Your task to perform on an android device: open chrome privacy settings Image 0: 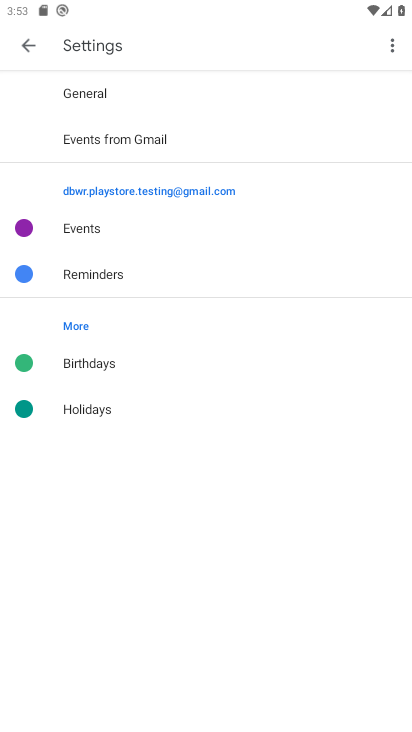
Step 0: press home button
Your task to perform on an android device: open chrome privacy settings Image 1: 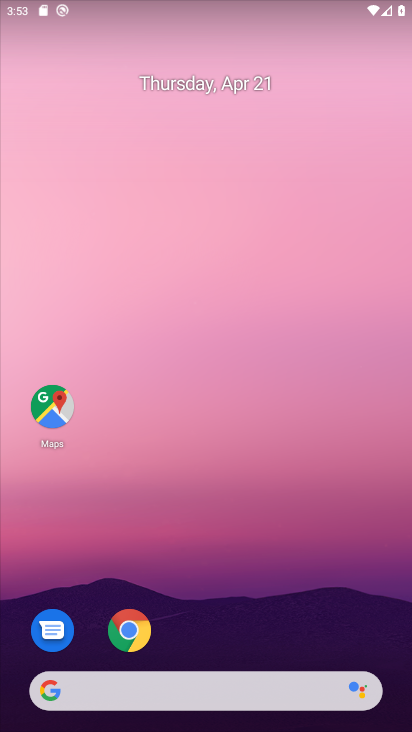
Step 1: click (132, 637)
Your task to perform on an android device: open chrome privacy settings Image 2: 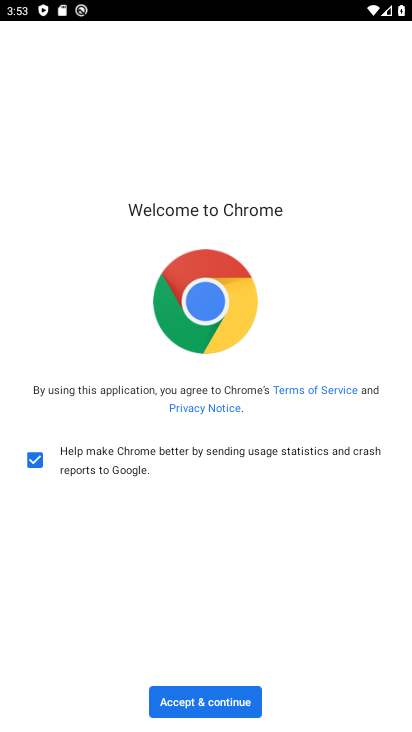
Step 2: click (232, 702)
Your task to perform on an android device: open chrome privacy settings Image 3: 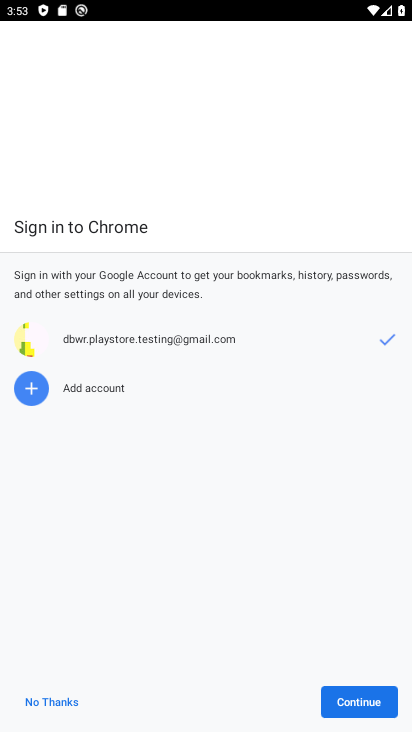
Step 3: click (336, 697)
Your task to perform on an android device: open chrome privacy settings Image 4: 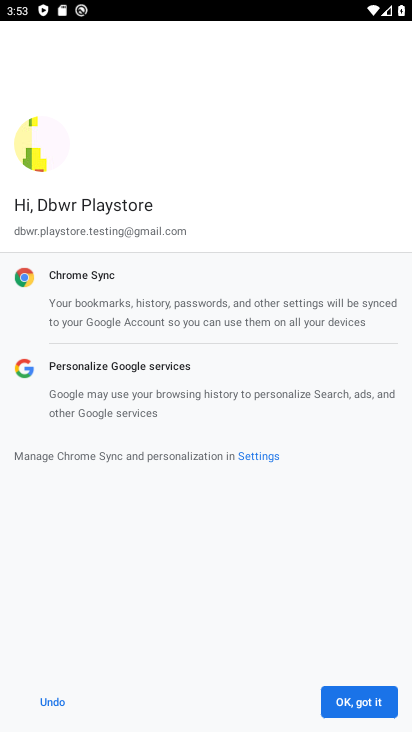
Step 4: click (336, 697)
Your task to perform on an android device: open chrome privacy settings Image 5: 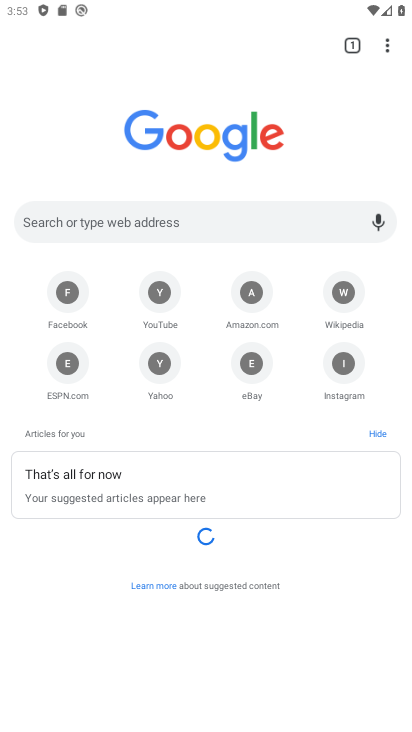
Step 5: drag from (387, 40) to (311, 382)
Your task to perform on an android device: open chrome privacy settings Image 6: 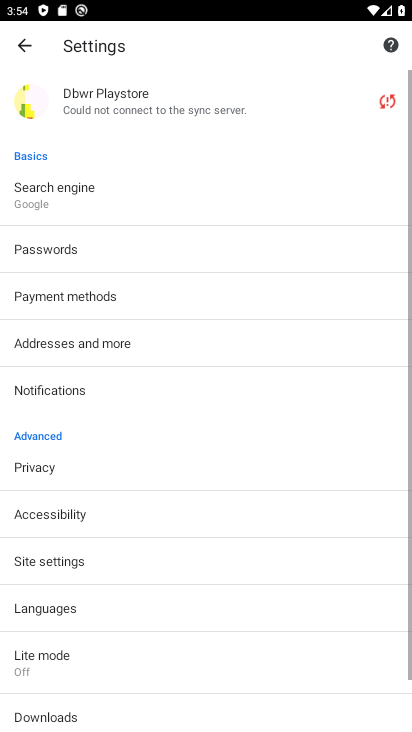
Step 6: click (284, 463)
Your task to perform on an android device: open chrome privacy settings Image 7: 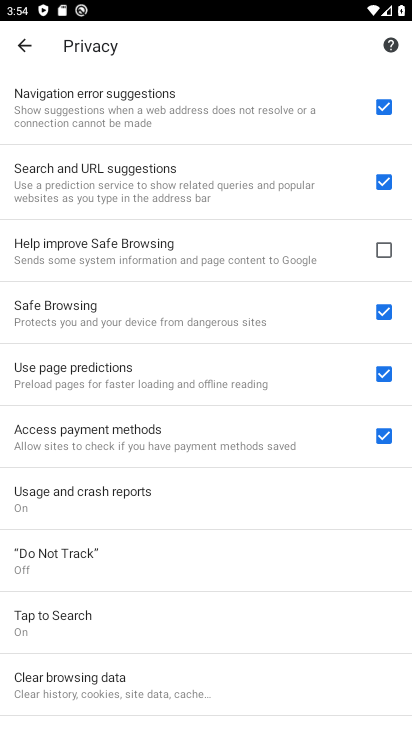
Step 7: task complete